Your task to perform on an android device: Open the map Image 0: 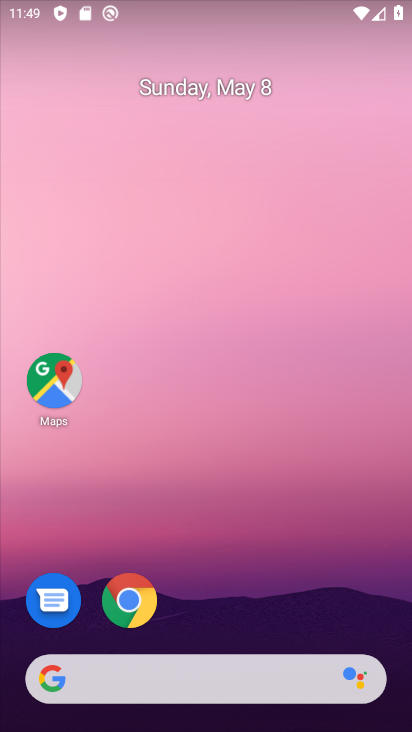
Step 0: click (50, 394)
Your task to perform on an android device: Open the map Image 1: 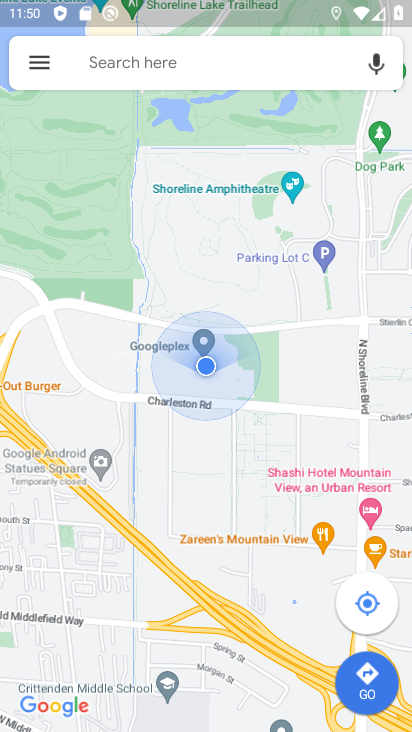
Step 1: task complete